Your task to perform on an android device: Go to CNN.com Image 0: 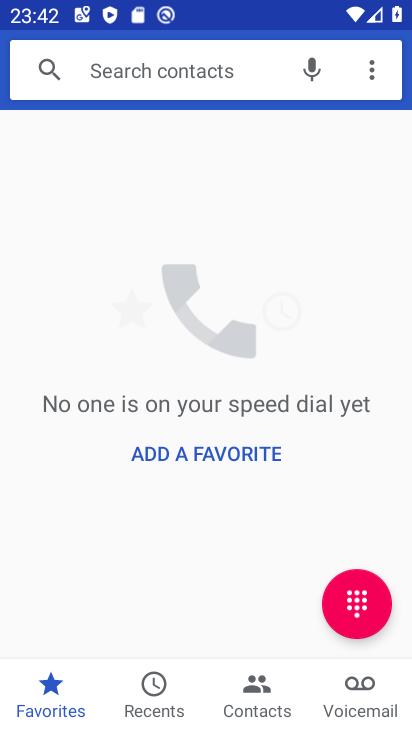
Step 0: press back button
Your task to perform on an android device: Go to CNN.com Image 1: 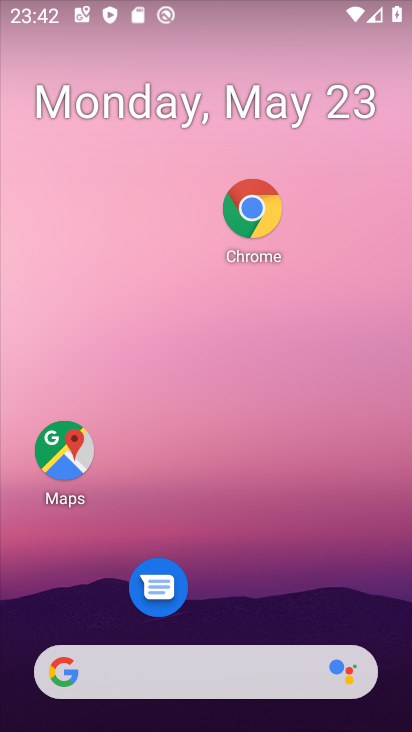
Step 1: drag from (314, 702) to (251, 123)
Your task to perform on an android device: Go to CNN.com Image 2: 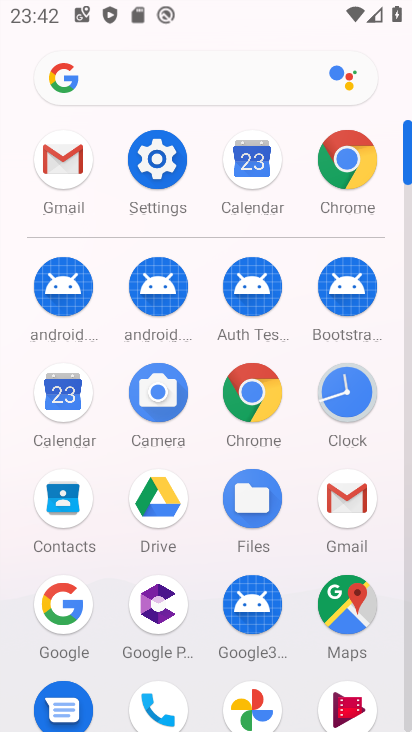
Step 2: click (343, 159)
Your task to perform on an android device: Go to CNN.com Image 3: 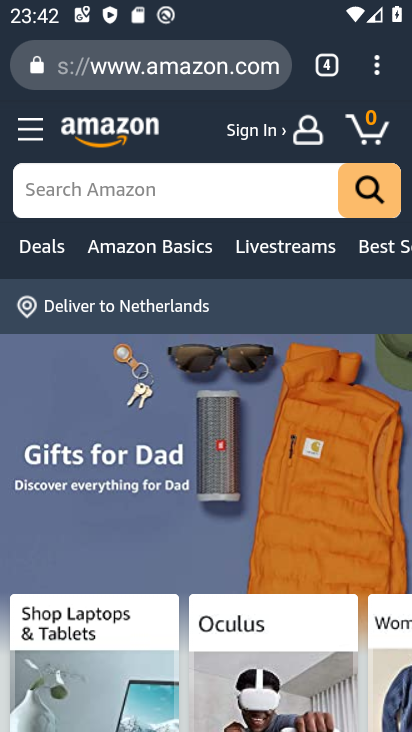
Step 3: drag from (376, 65) to (145, 120)
Your task to perform on an android device: Go to CNN.com Image 4: 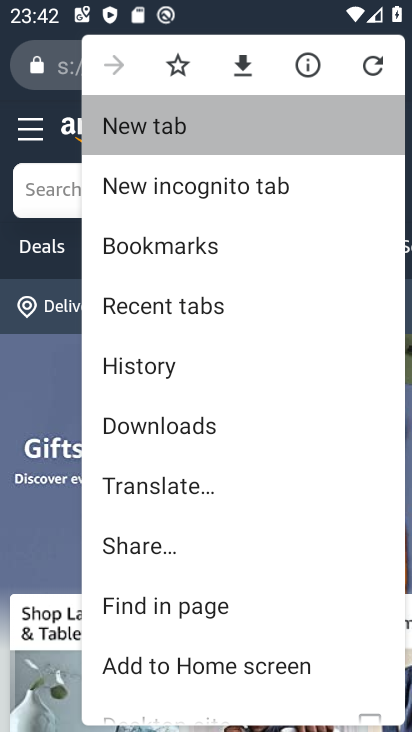
Step 4: click (145, 120)
Your task to perform on an android device: Go to CNN.com Image 5: 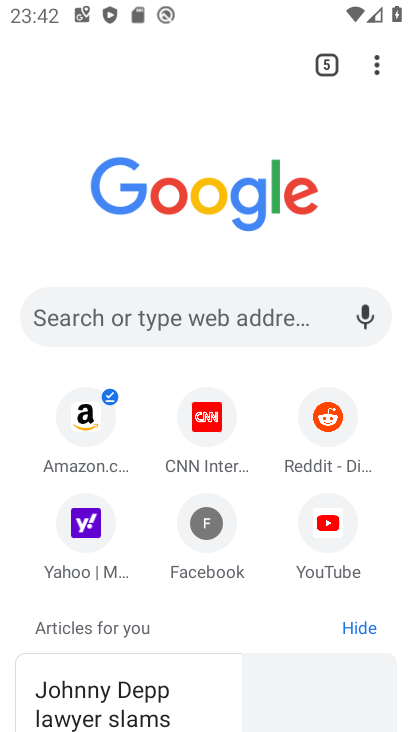
Step 5: click (197, 415)
Your task to perform on an android device: Go to CNN.com Image 6: 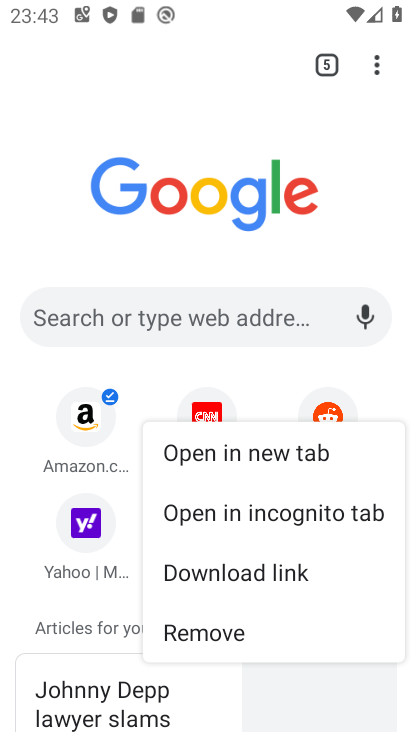
Step 6: click (201, 457)
Your task to perform on an android device: Go to CNN.com Image 7: 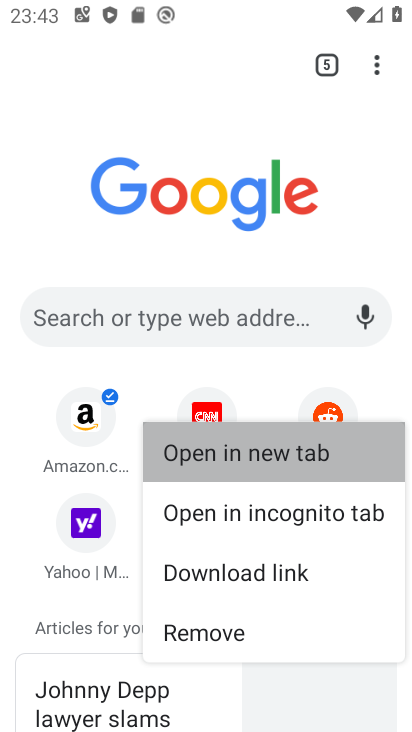
Step 7: click (201, 457)
Your task to perform on an android device: Go to CNN.com Image 8: 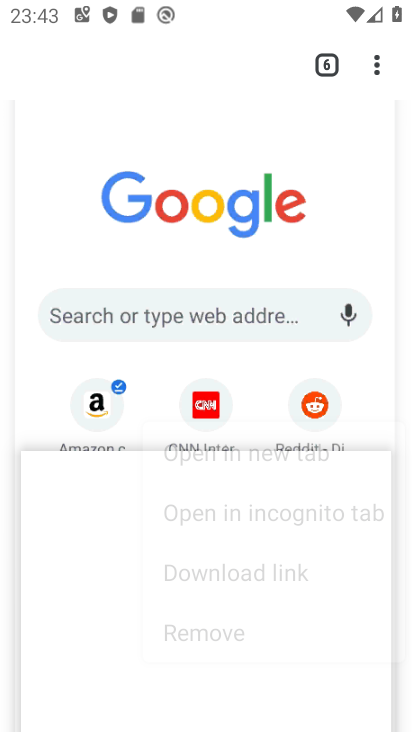
Step 8: click (207, 453)
Your task to perform on an android device: Go to CNN.com Image 9: 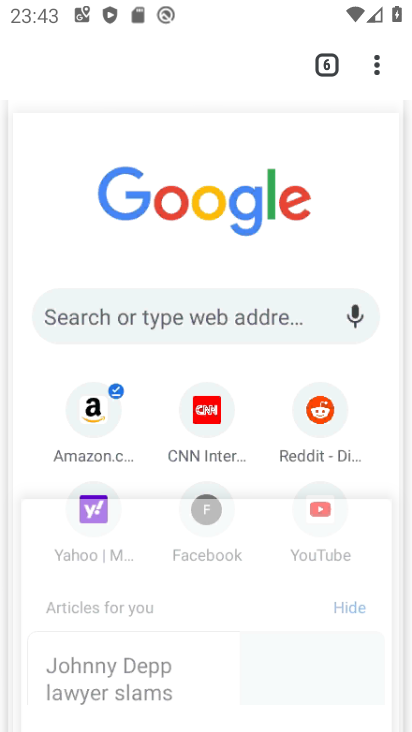
Step 9: click (212, 453)
Your task to perform on an android device: Go to CNN.com Image 10: 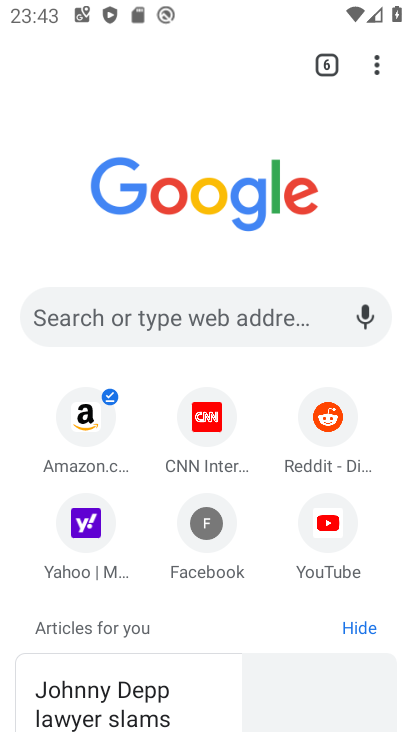
Step 10: click (198, 413)
Your task to perform on an android device: Go to CNN.com Image 11: 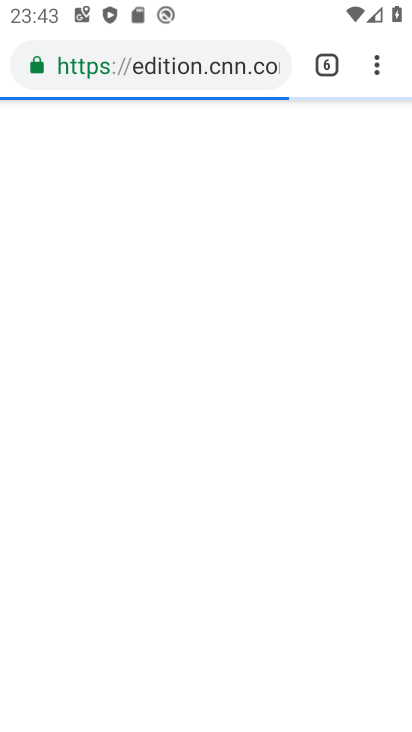
Step 11: task complete